Your task to perform on an android device: open app "Messages" Image 0: 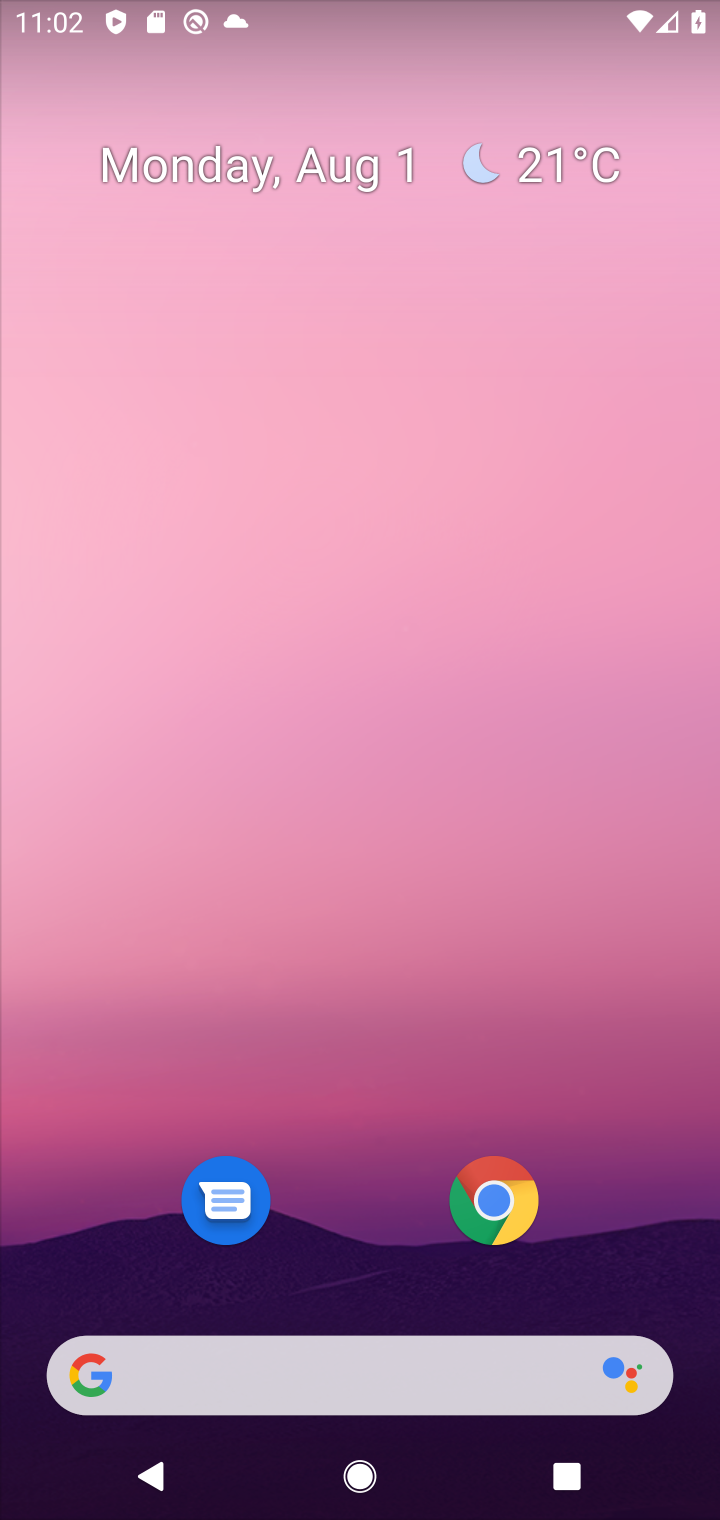
Step 0: drag from (375, 1228) to (320, 147)
Your task to perform on an android device: open app "Messages" Image 1: 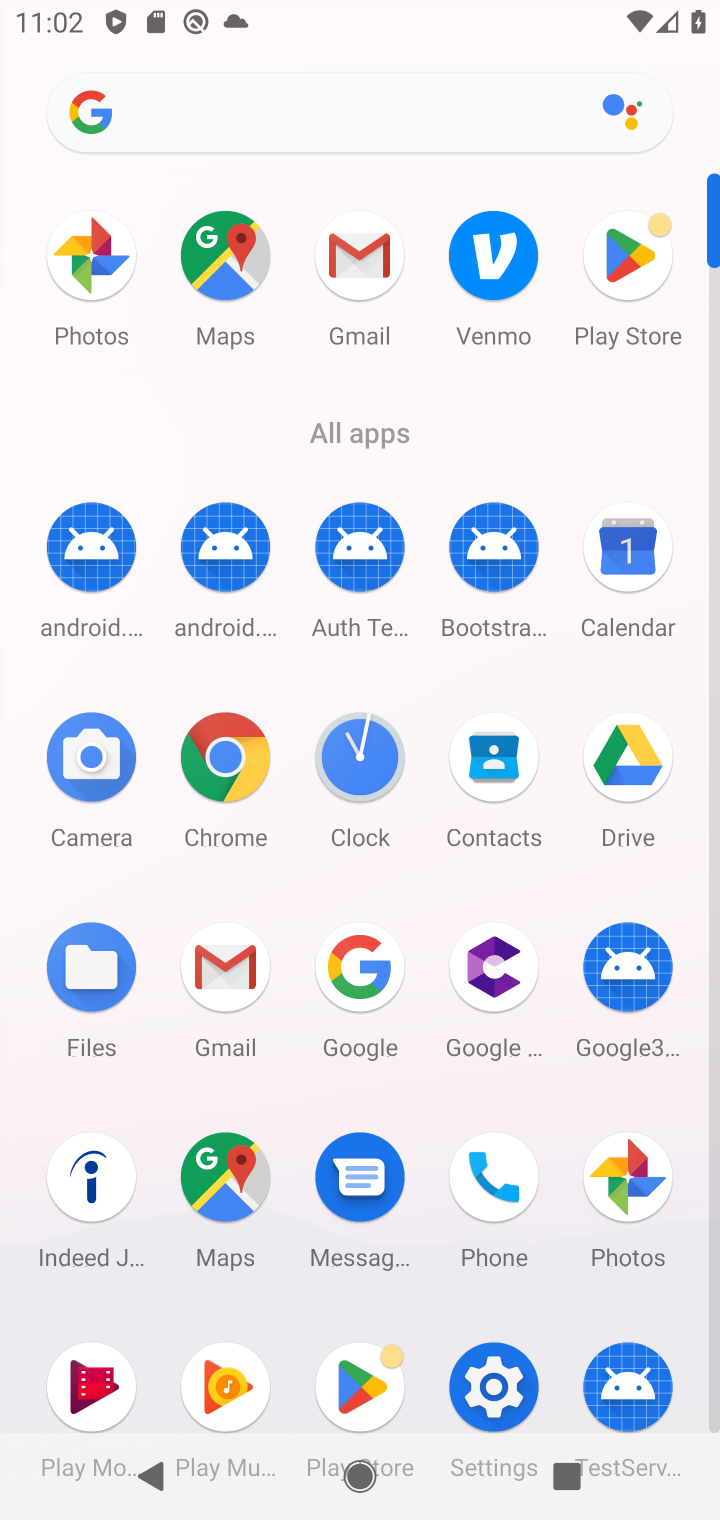
Step 1: click (640, 257)
Your task to perform on an android device: open app "Messages" Image 2: 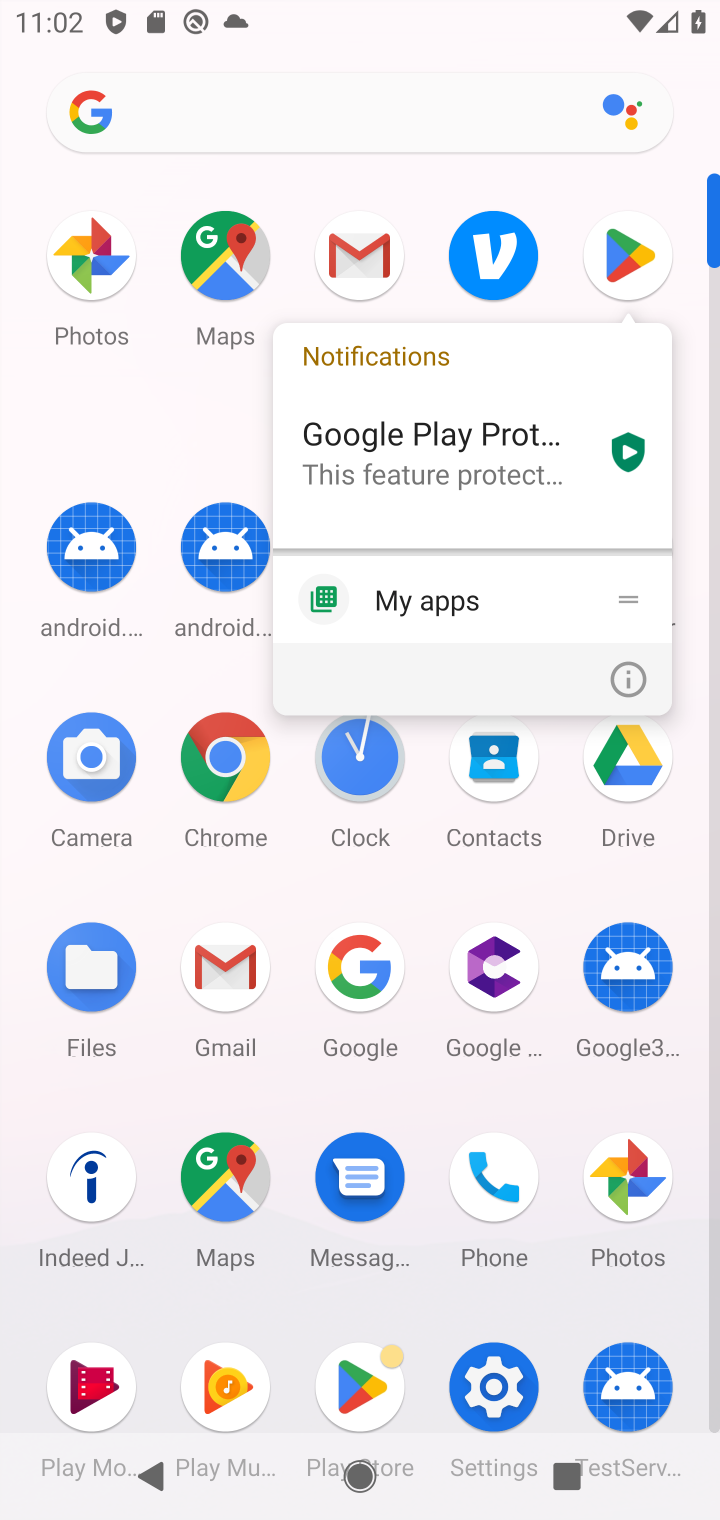
Step 2: click (640, 257)
Your task to perform on an android device: open app "Messages" Image 3: 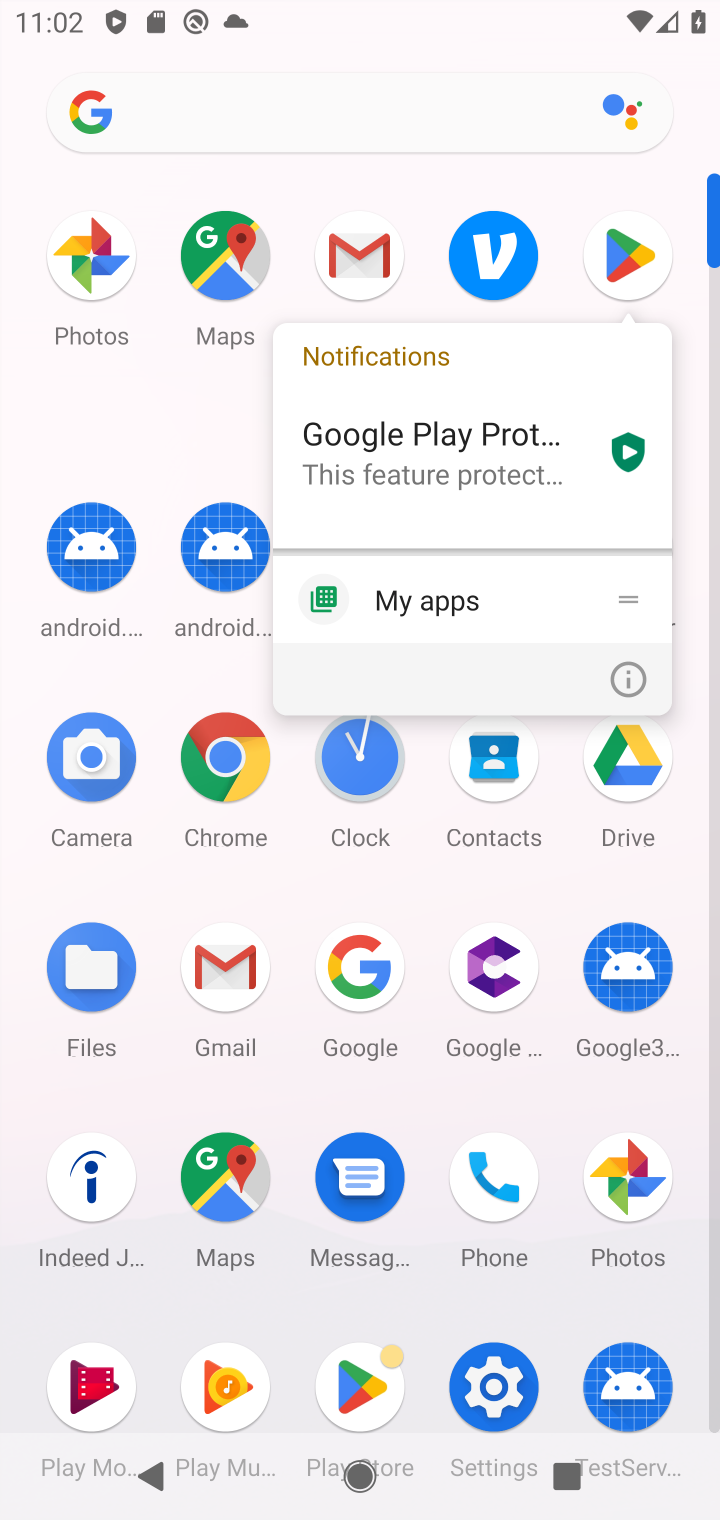
Step 3: click (640, 257)
Your task to perform on an android device: open app "Messages" Image 4: 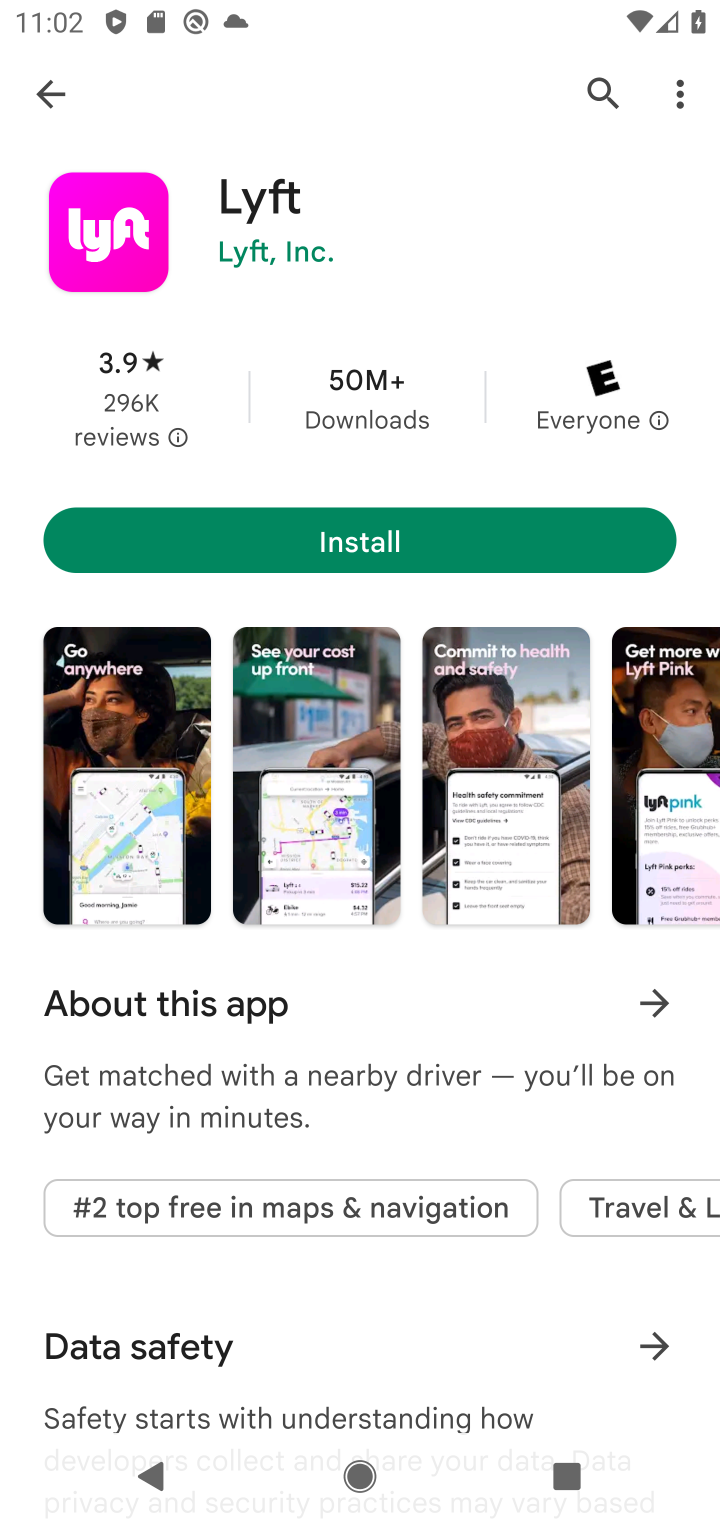
Step 4: click (600, 88)
Your task to perform on an android device: open app "Messages" Image 5: 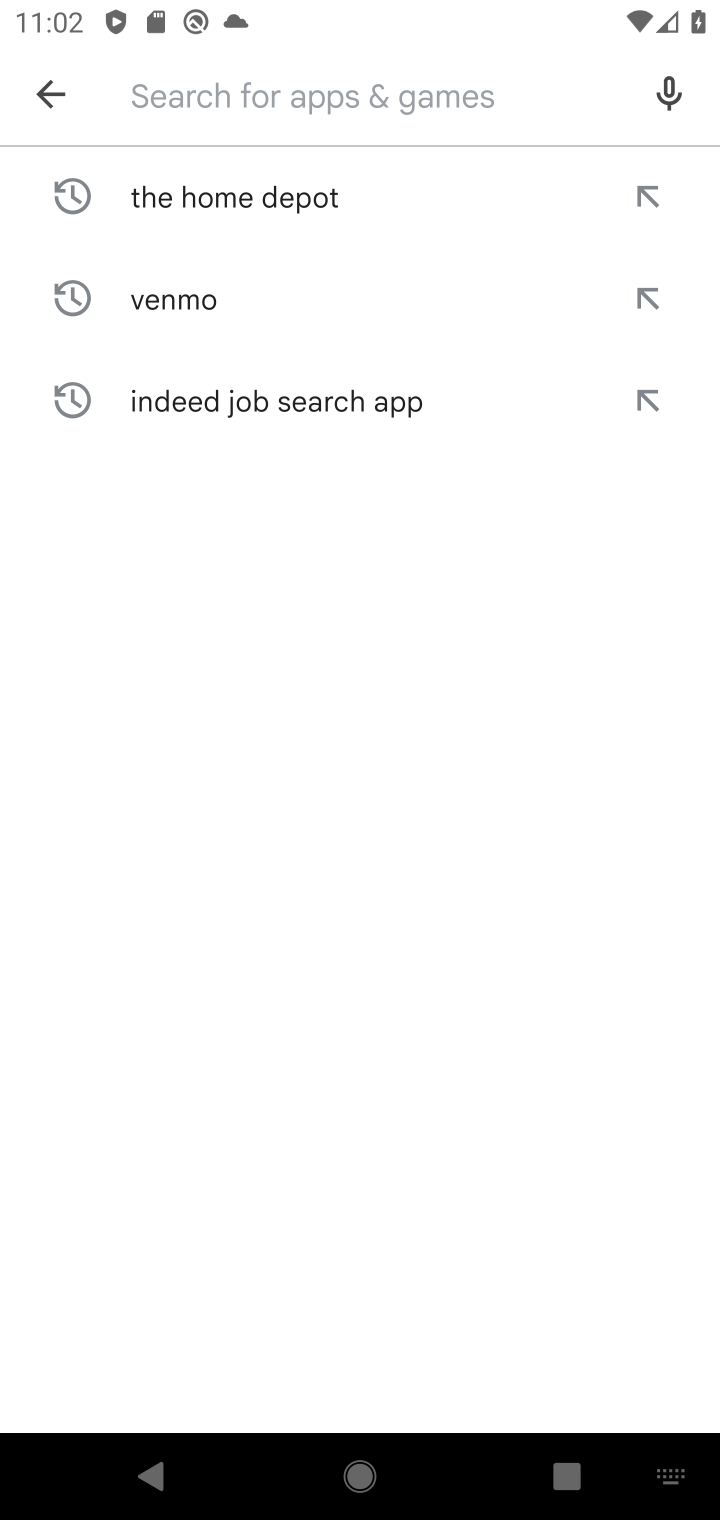
Step 5: type "Messages"
Your task to perform on an android device: open app "Messages" Image 6: 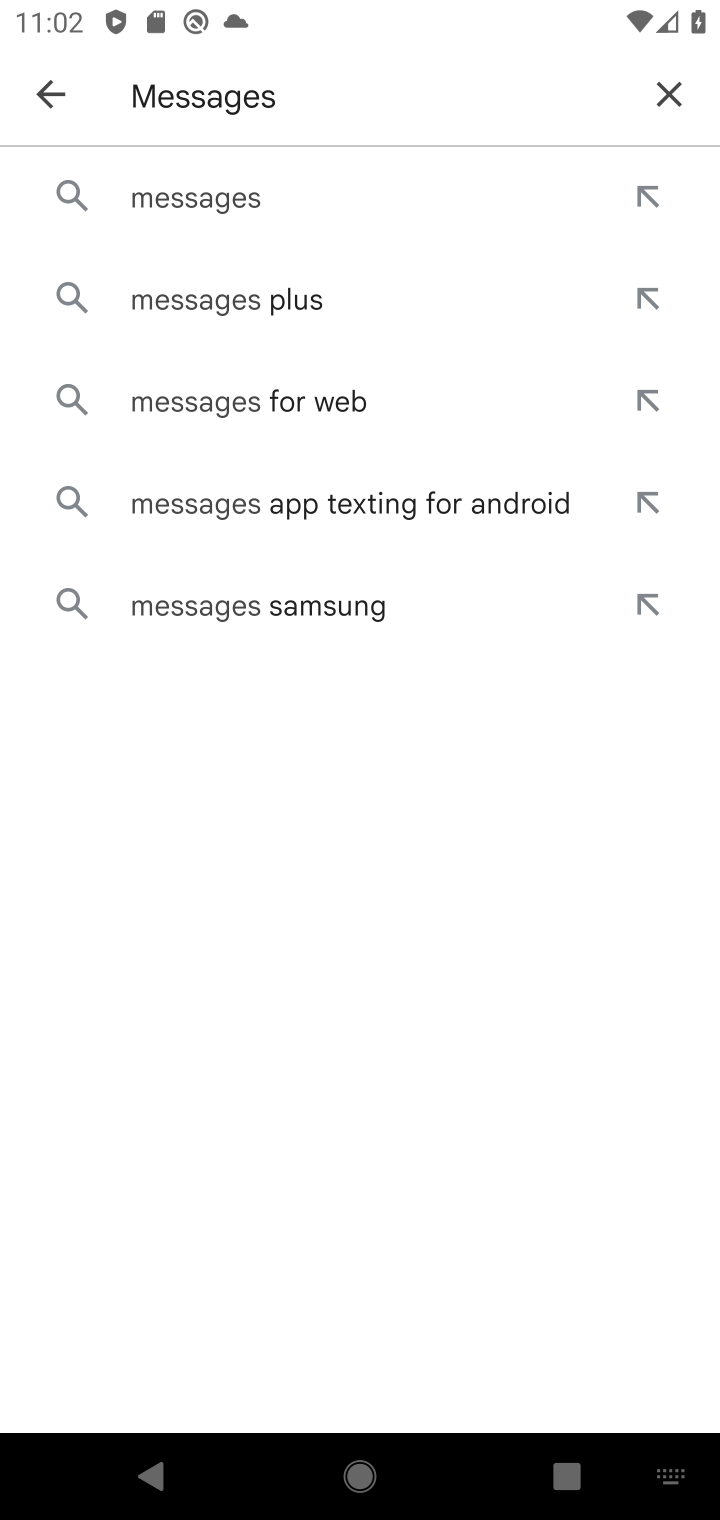
Step 6: click (192, 190)
Your task to perform on an android device: open app "Messages" Image 7: 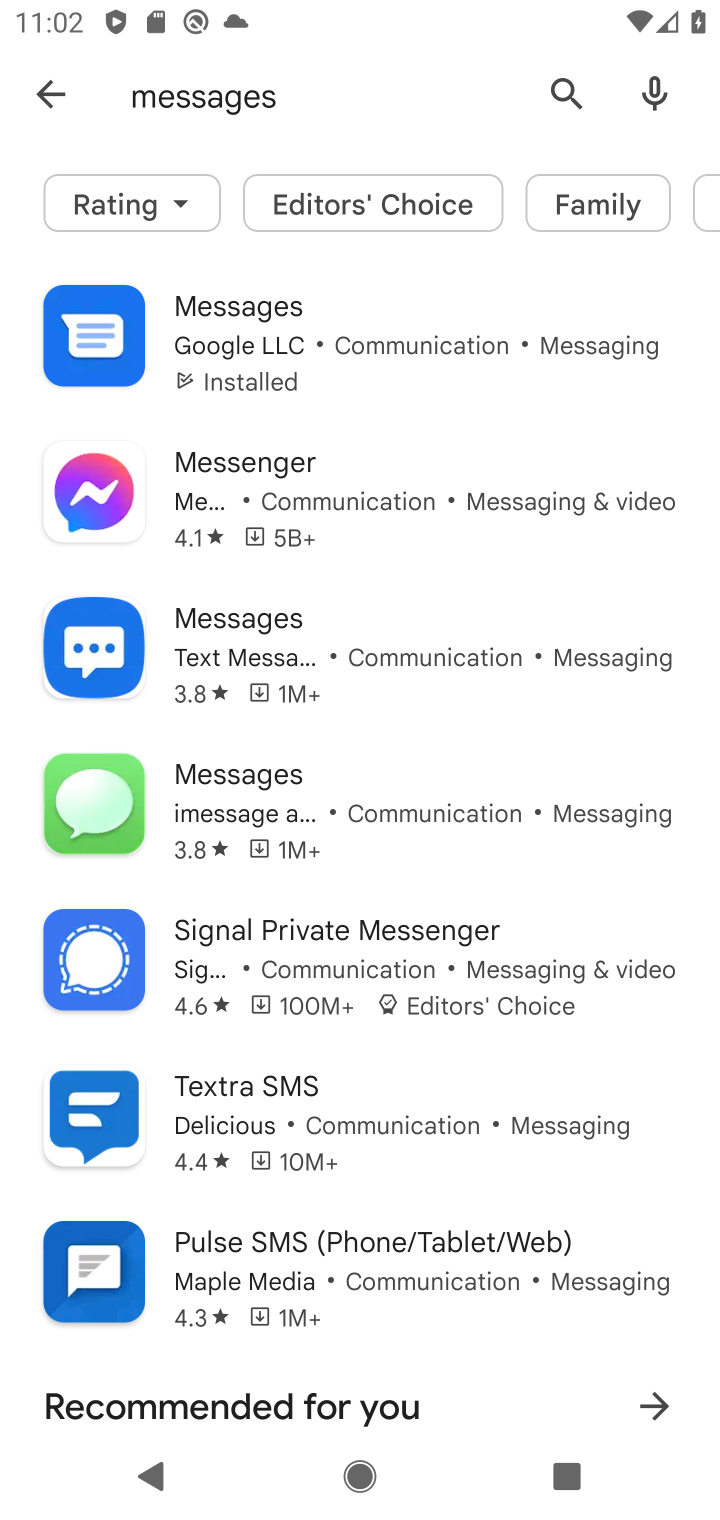
Step 7: click (236, 355)
Your task to perform on an android device: open app "Messages" Image 8: 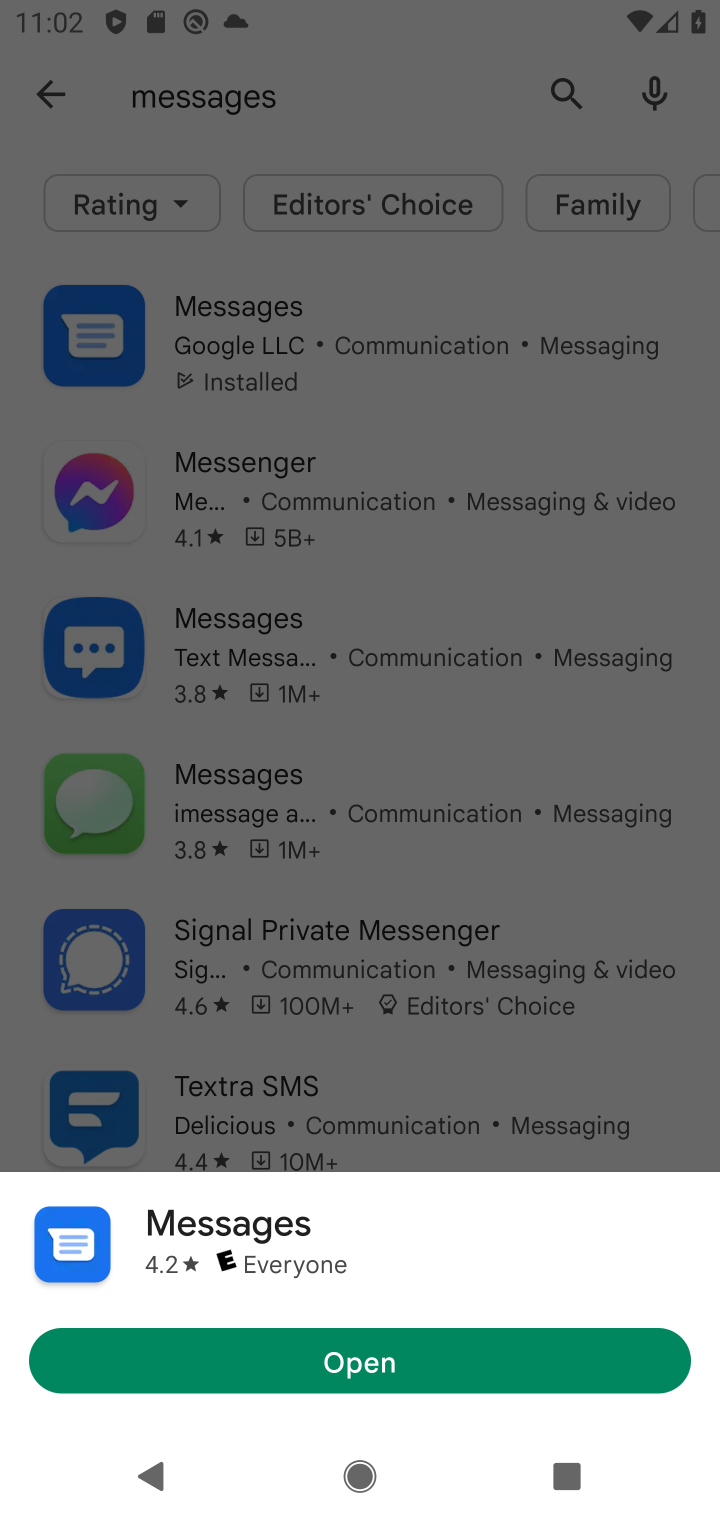
Step 8: click (361, 1360)
Your task to perform on an android device: open app "Messages" Image 9: 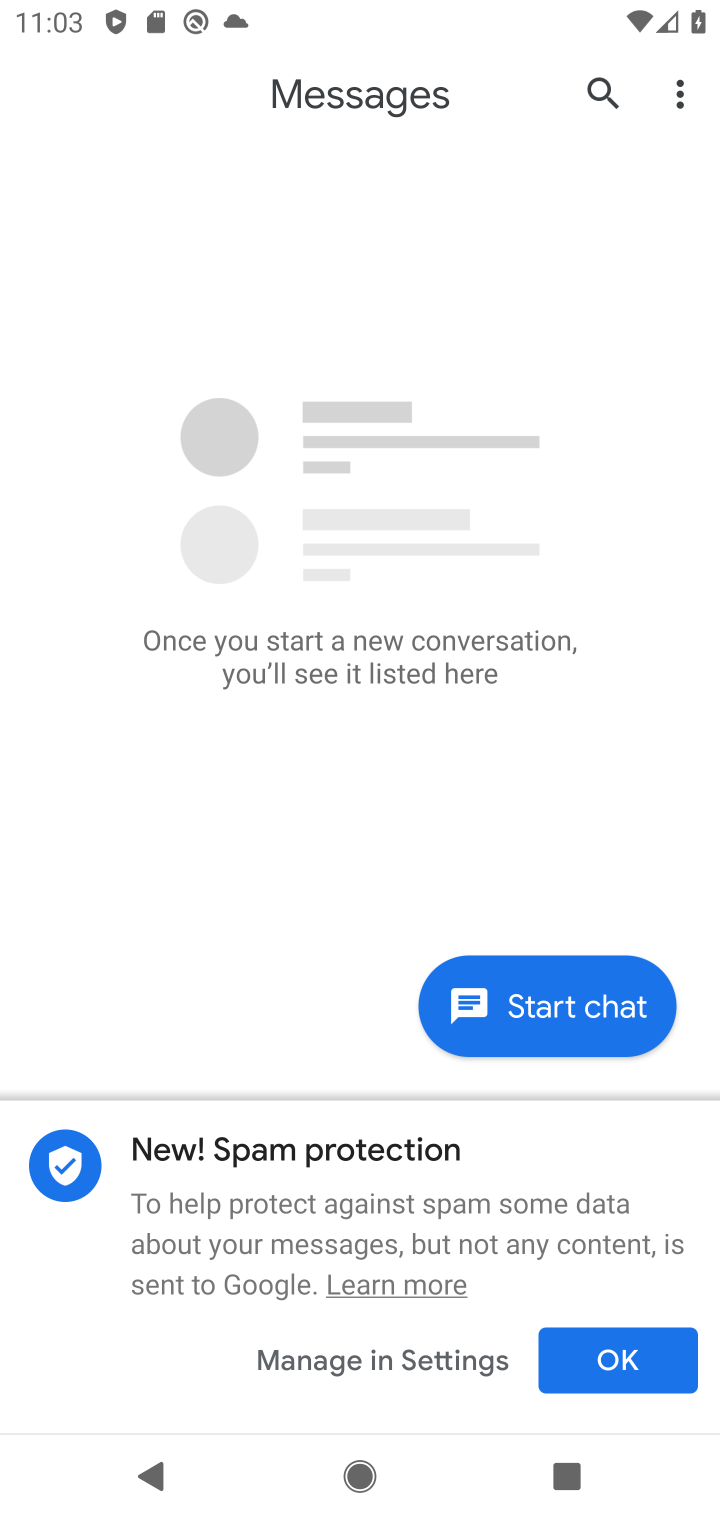
Step 9: task complete